Your task to perform on an android device: turn off sleep mode Image 0: 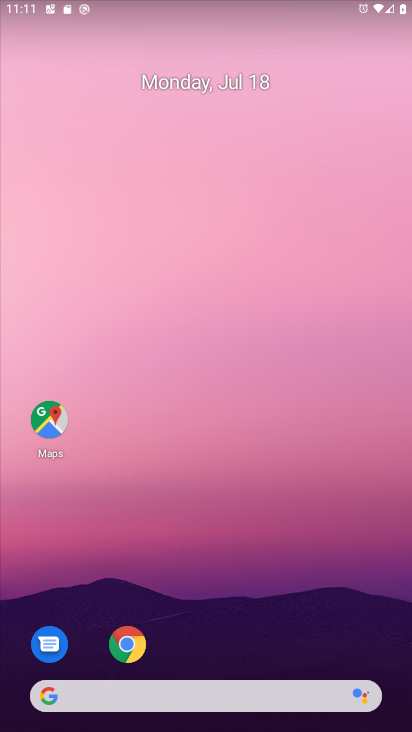
Step 0: drag from (255, 670) to (240, 329)
Your task to perform on an android device: turn off sleep mode Image 1: 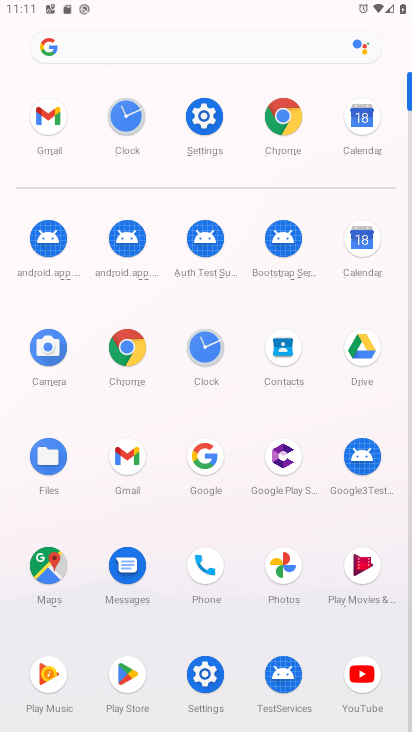
Step 1: click (199, 145)
Your task to perform on an android device: turn off sleep mode Image 2: 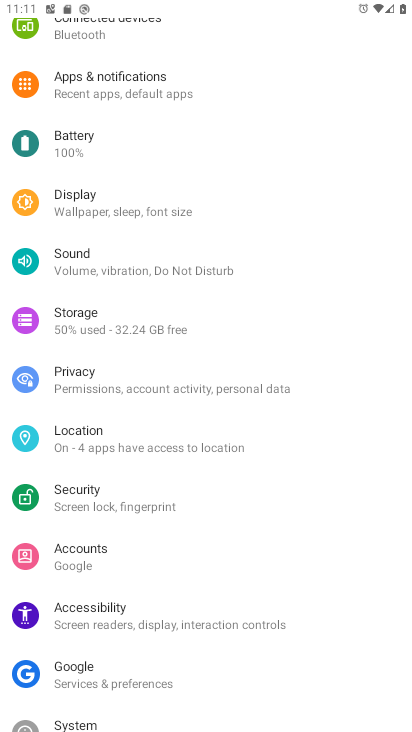
Step 2: click (186, 216)
Your task to perform on an android device: turn off sleep mode Image 3: 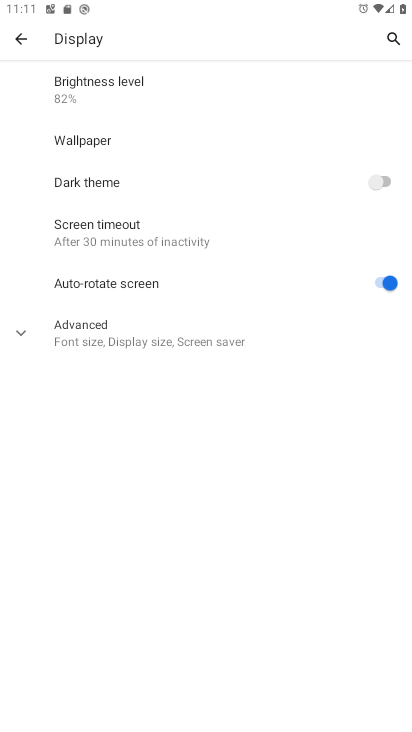
Step 3: task complete